Your task to perform on an android device: Open CNN.com Image 0: 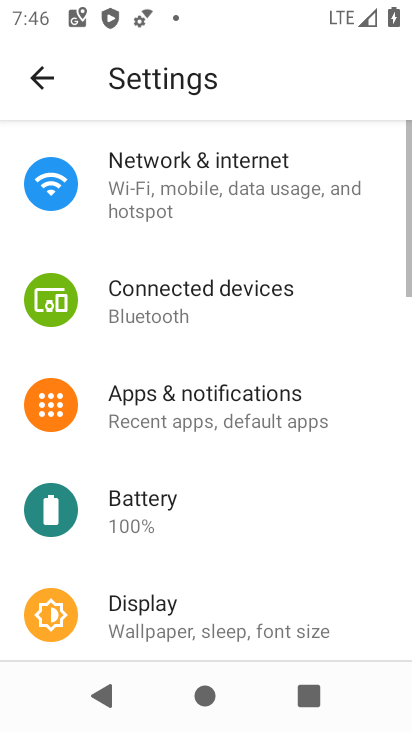
Step 0: press home button
Your task to perform on an android device: Open CNN.com Image 1: 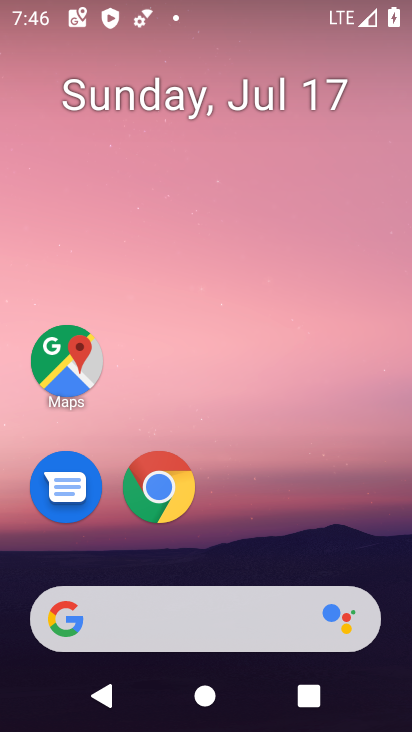
Step 1: drag from (355, 549) to (368, 51)
Your task to perform on an android device: Open CNN.com Image 2: 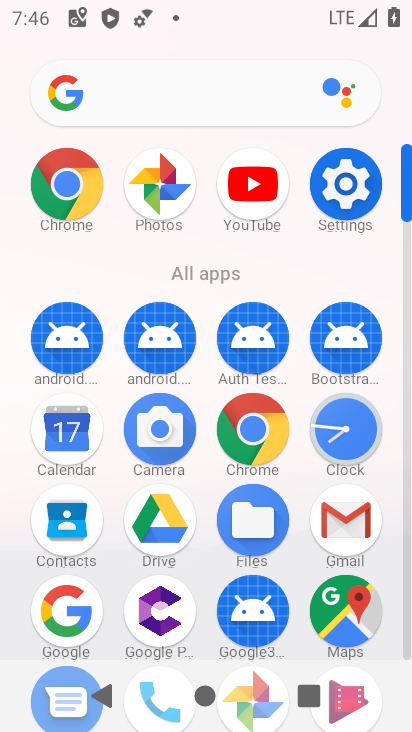
Step 2: click (270, 426)
Your task to perform on an android device: Open CNN.com Image 3: 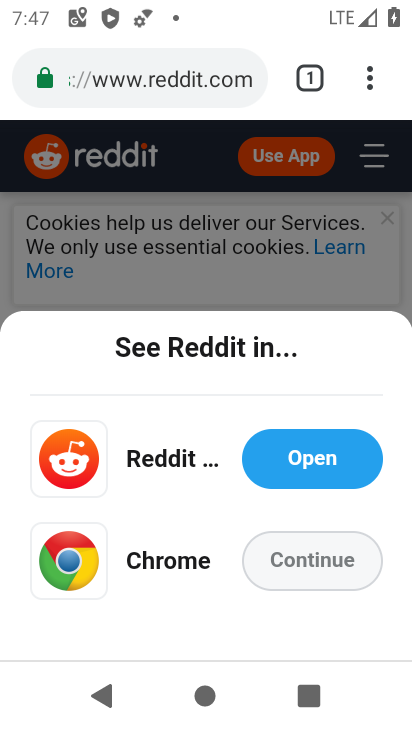
Step 3: click (196, 91)
Your task to perform on an android device: Open CNN.com Image 4: 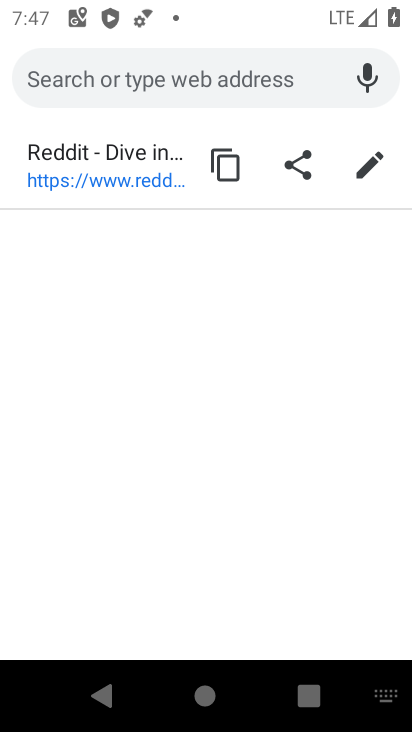
Step 4: type "cnn.com"
Your task to perform on an android device: Open CNN.com Image 5: 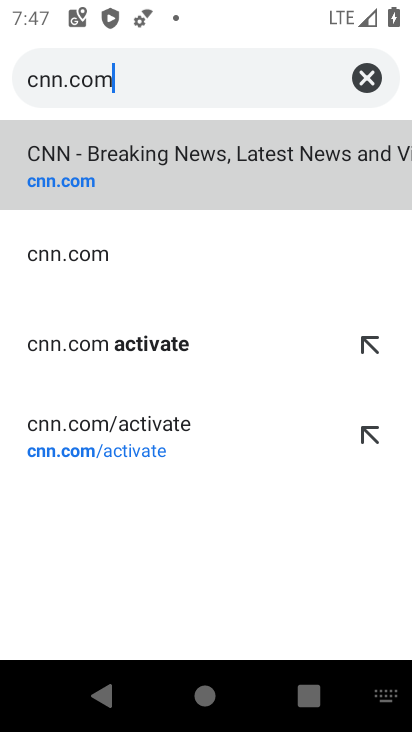
Step 5: click (232, 163)
Your task to perform on an android device: Open CNN.com Image 6: 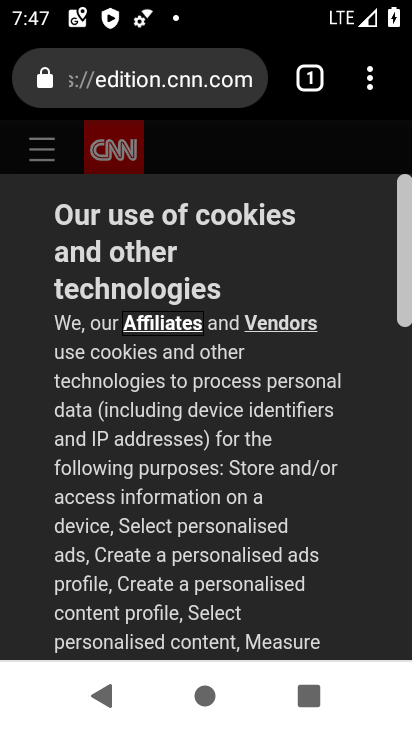
Step 6: task complete